Your task to perform on an android device: Open Reddit.com Image 0: 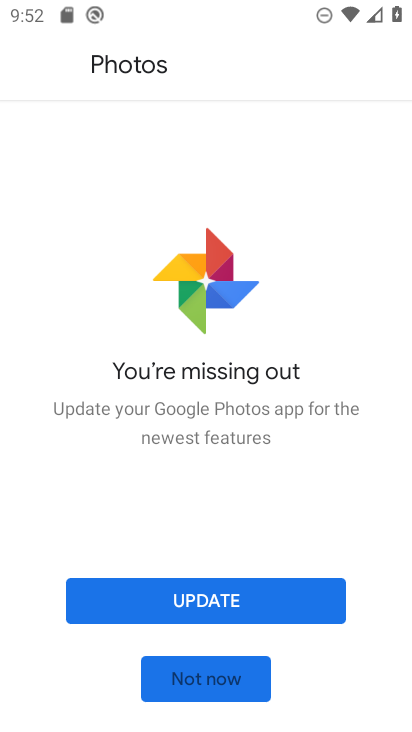
Step 0: press home button
Your task to perform on an android device: Open Reddit.com Image 1: 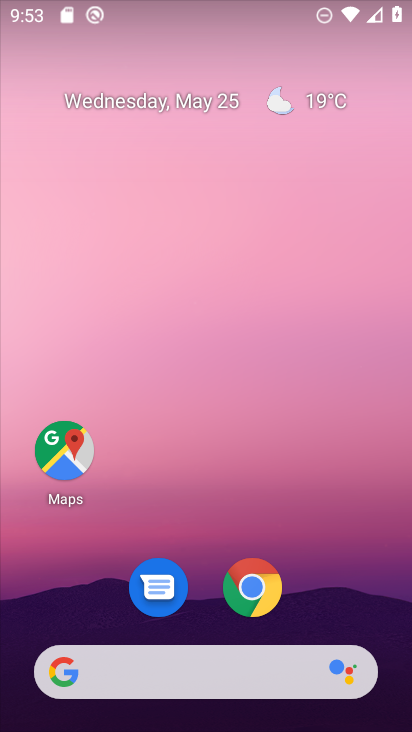
Step 1: click (252, 583)
Your task to perform on an android device: Open Reddit.com Image 2: 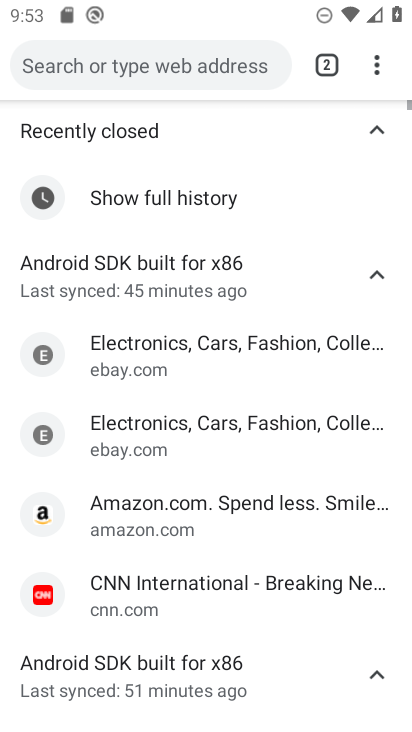
Step 2: click (136, 59)
Your task to perform on an android device: Open Reddit.com Image 3: 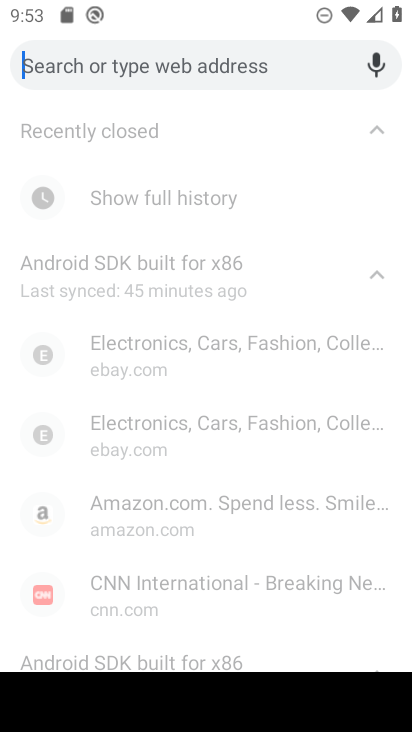
Step 3: type "reddit.com"
Your task to perform on an android device: Open Reddit.com Image 4: 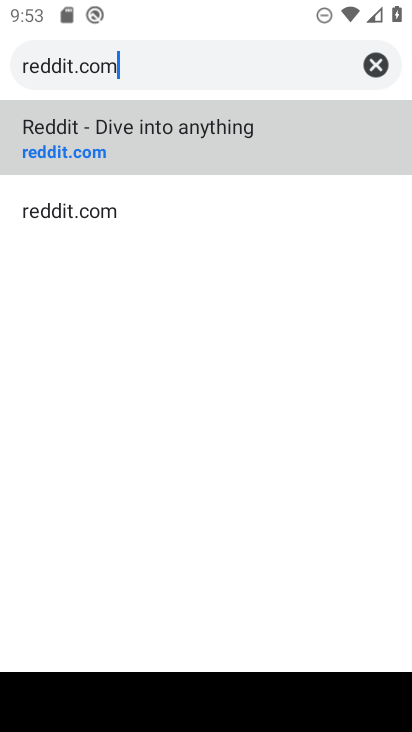
Step 4: click (161, 128)
Your task to perform on an android device: Open Reddit.com Image 5: 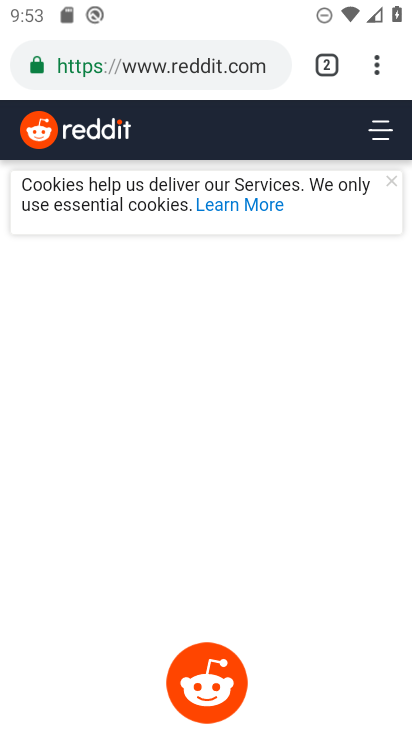
Step 5: task complete